Your task to perform on an android device: What's the weather going to be this weekend? Image 0: 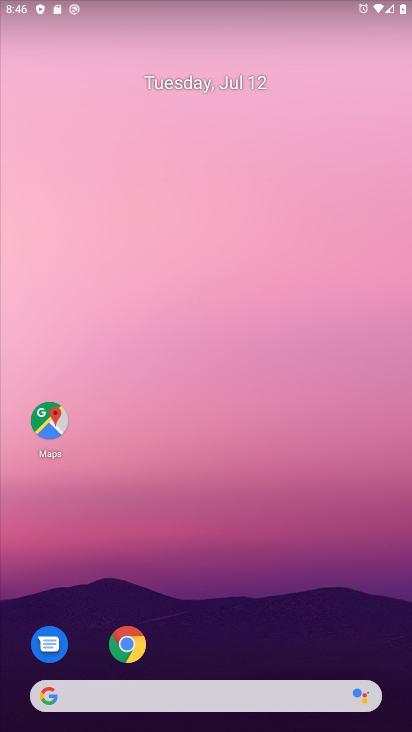
Step 0: click (89, 692)
Your task to perform on an android device: What's the weather going to be this weekend? Image 1: 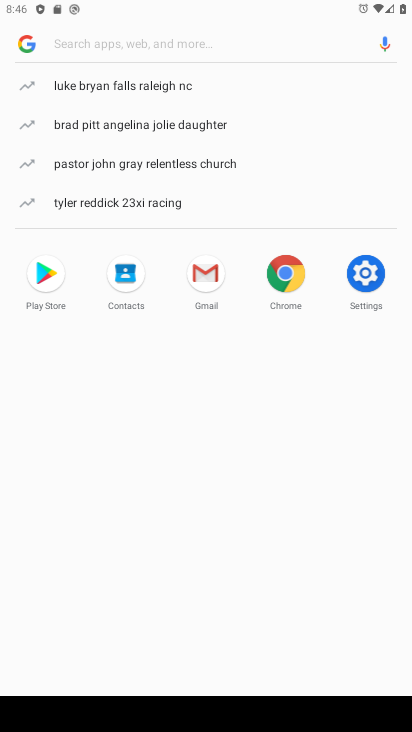
Step 1: type "What's the weather going to be this weekend?"
Your task to perform on an android device: What's the weather going to be this weekend? Image 2: 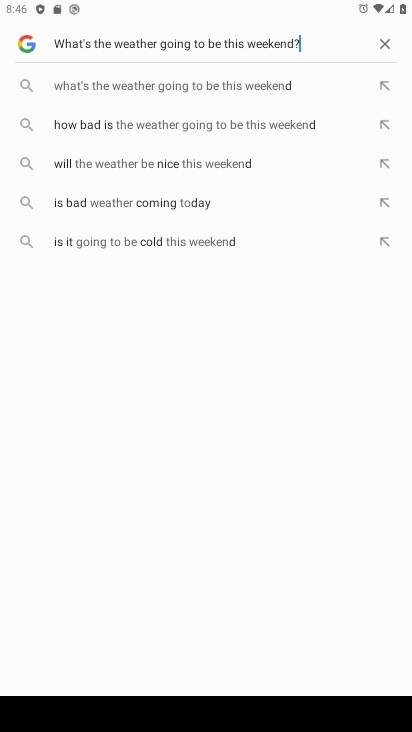
Step 2: type ""
Your task to perform on an android device: What's the weather going to be this weekend? Image 3: 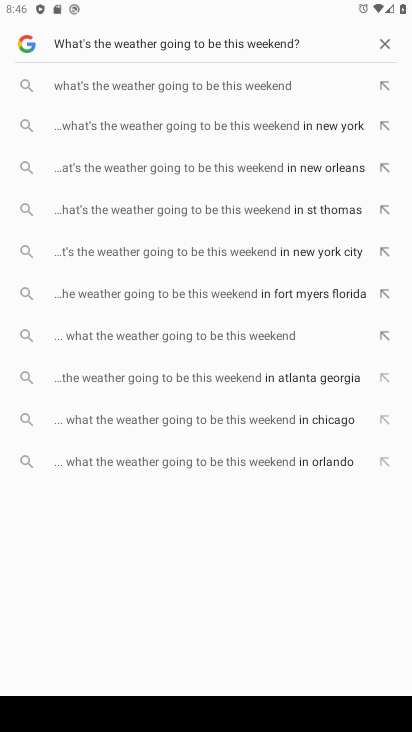
Step 3: click (212, 82)
Your task to perform on an android device: What's the weather going to be this weekend? Image 4: 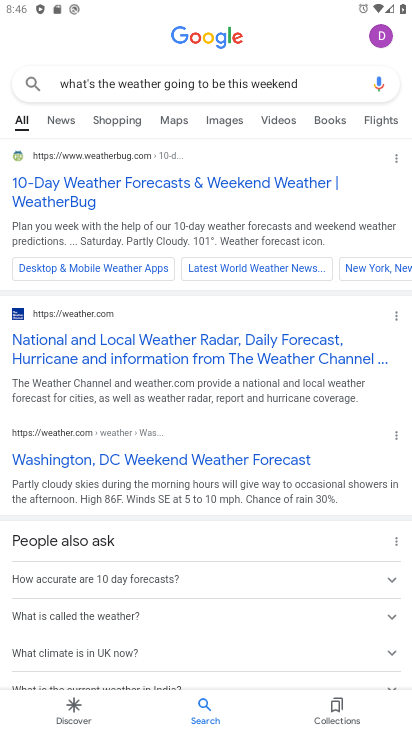
Step 4: task complete